Your task to perform on an android device: Go to Wikipedia Image 0: 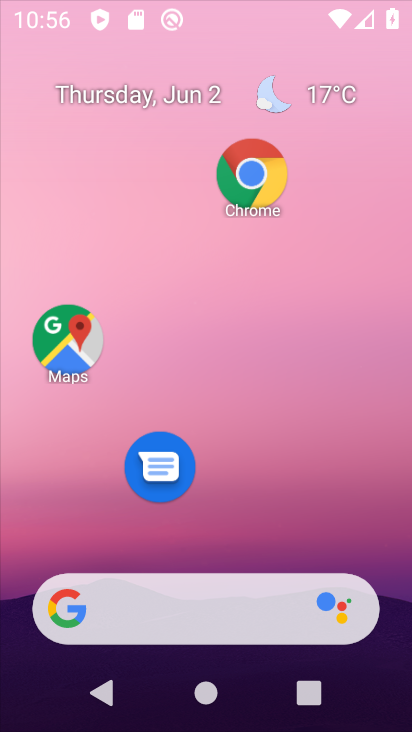
Step 0: press home button
Your task to perform on an android device: Go to Wikipedia Image 1: 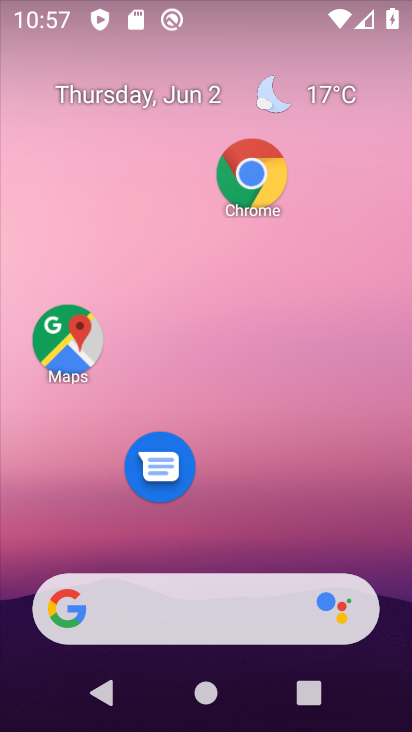
Step 1: click (72, 615)
Your task to perform on an android device: Go to Wikipedia Image 2: 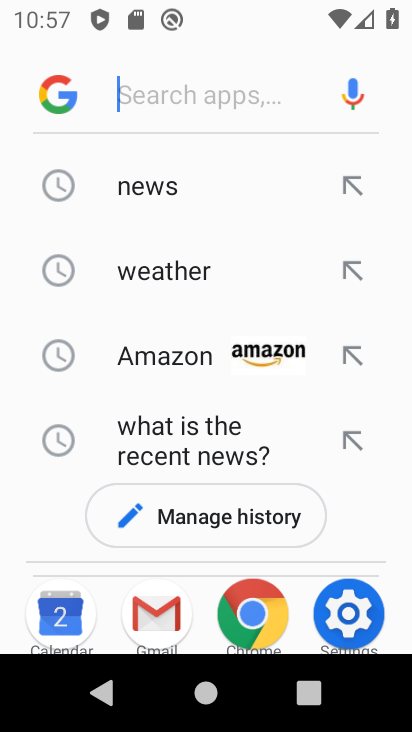
Step 2: type "Wikipedia"
Your task to perform on an android device: Go to Wikipedia Image 3: 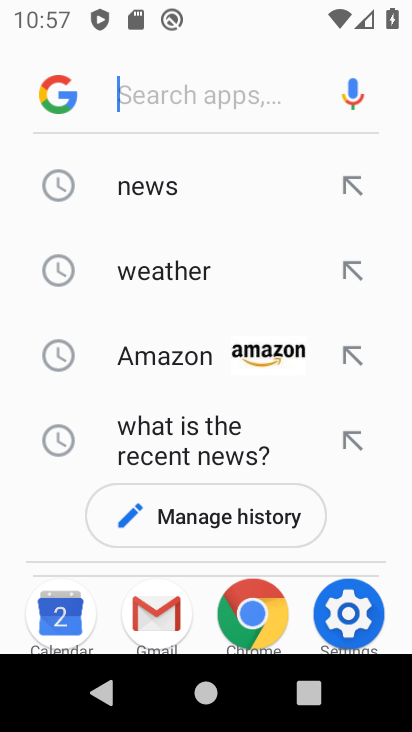
Step 3: click (163, 96)
Your task to perform on an android device: Go to Wikipedia Image 4: 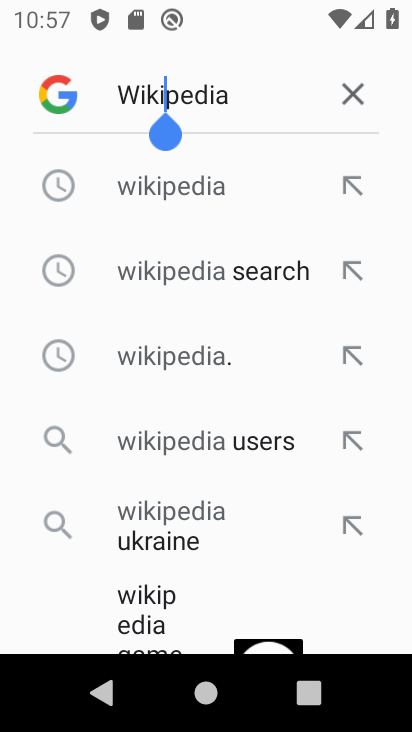
Step 4: click (188, 188)
Your task to perform on an android device: Go to Wikipedia Image 5: 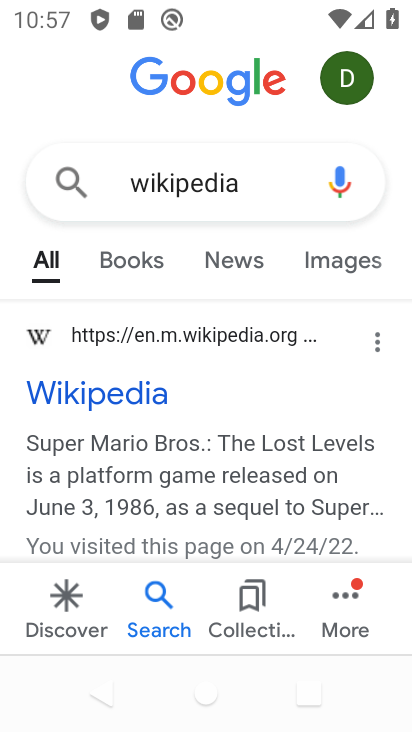
Step 5: click (97, 398)
Your task to perform on an android device: Go to Wikipedia Image 6: 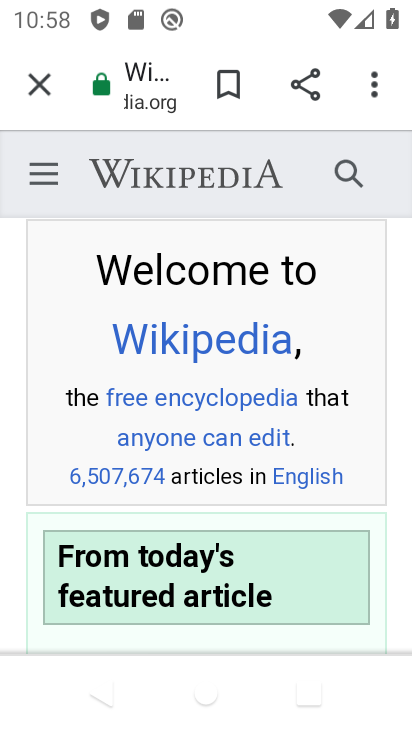
Step 6: task complete